Your task to perform on an android device: Open network settings Image 0: 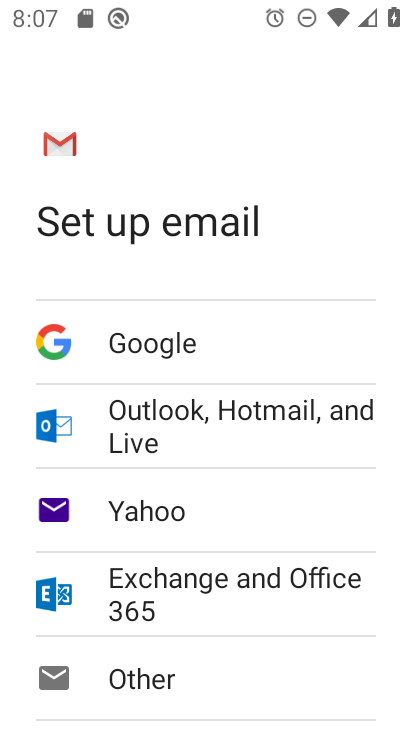
Step 0: press home button
Your task to perform on an android device: Open network settings Image 1: 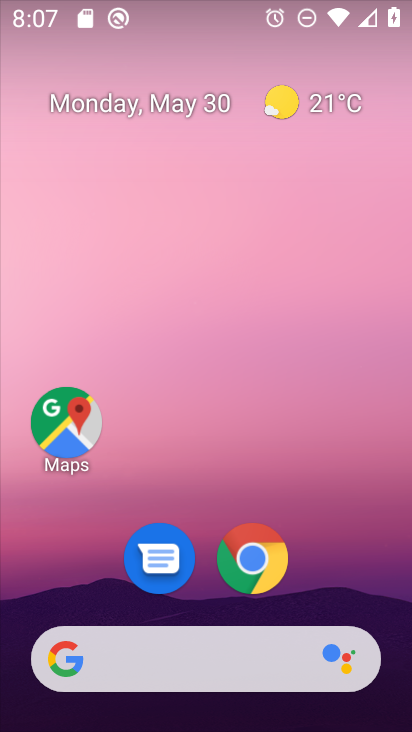
Step 1: drag from (396, 534) to (165, 115)
Your task to perform on an android device: Open network settings Image 2: 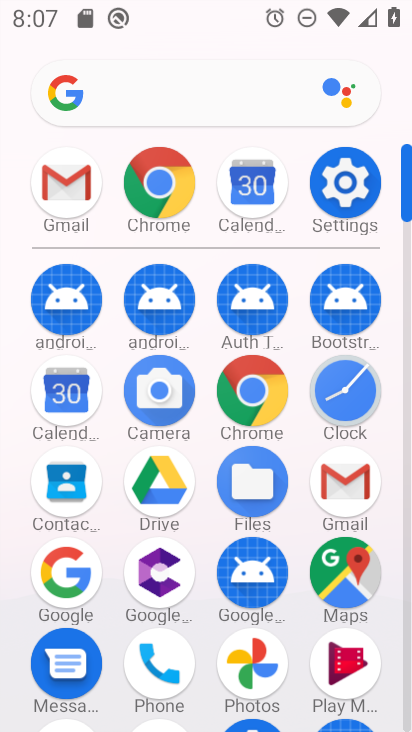
Step 2: click (326, 183)
Your task to perform on an android device: Open network settings Image 3: 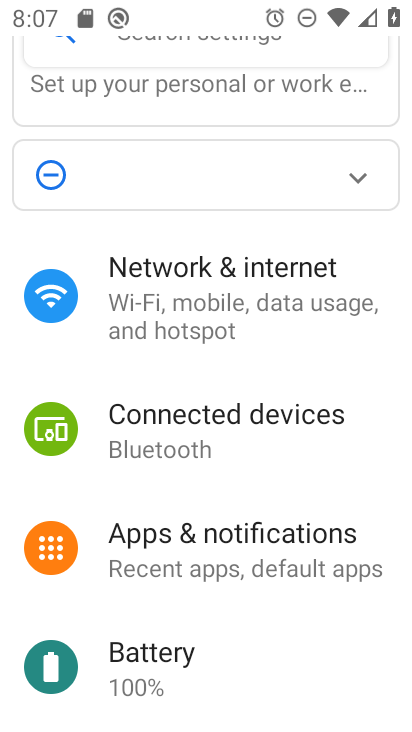
Step 3: click (203, 263)
Your task to perform on an android device: Open network settings Image 4: 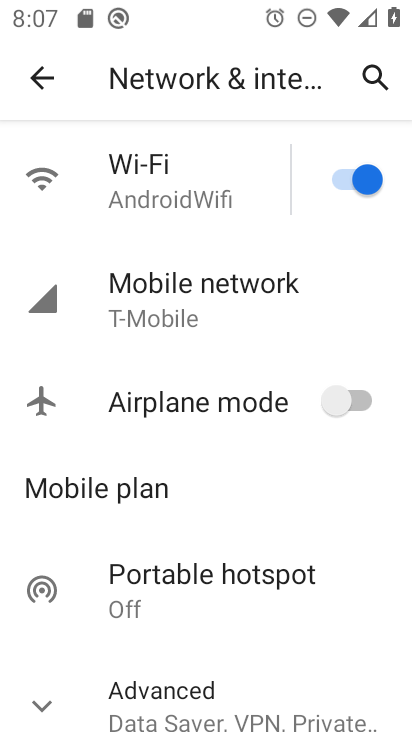
Step 4: task complete